Your task to perform on an android device: uninstall "Messenger Lite" Image 0: 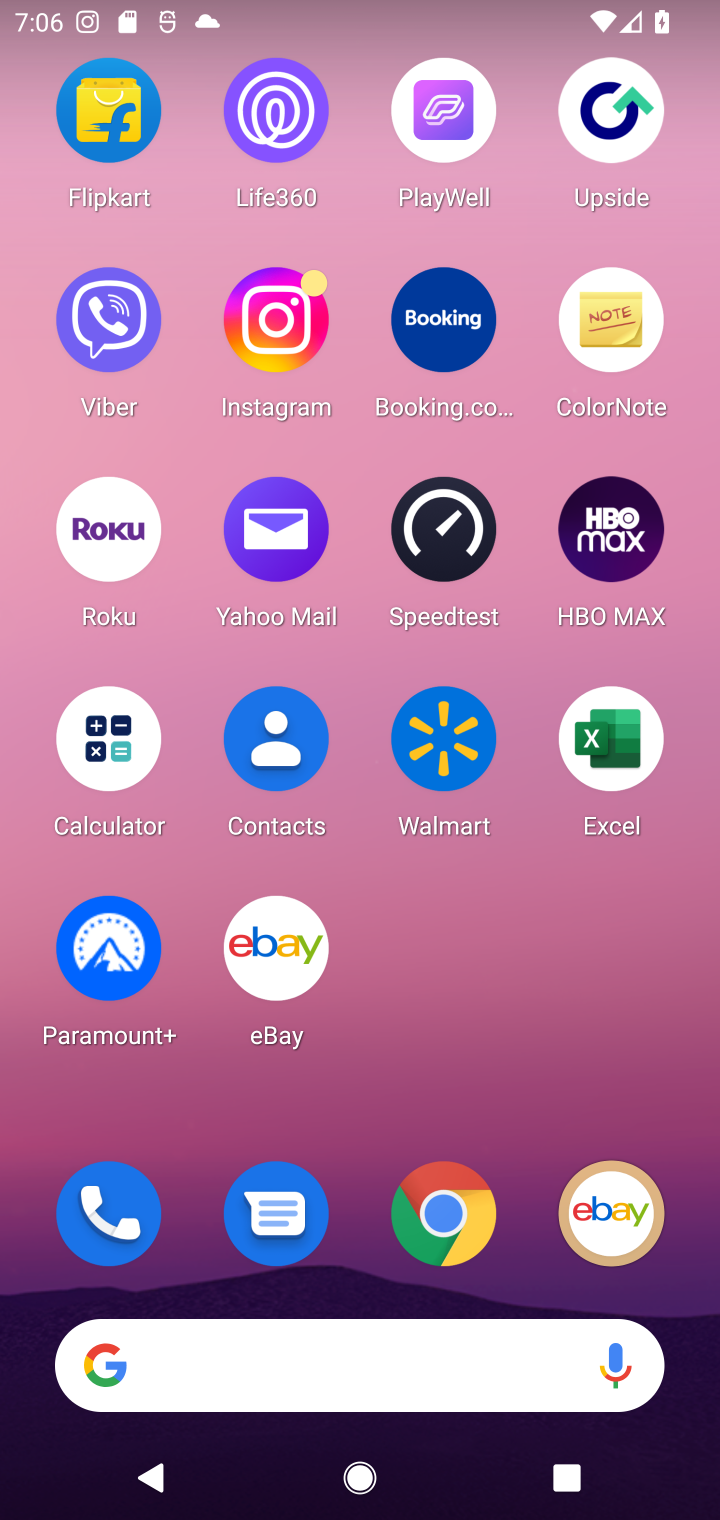
Step 0: drag from (369, 1084) to (425, 0)
Your task to perform on an android device: uninstall "Messenger Lite" Image 1: 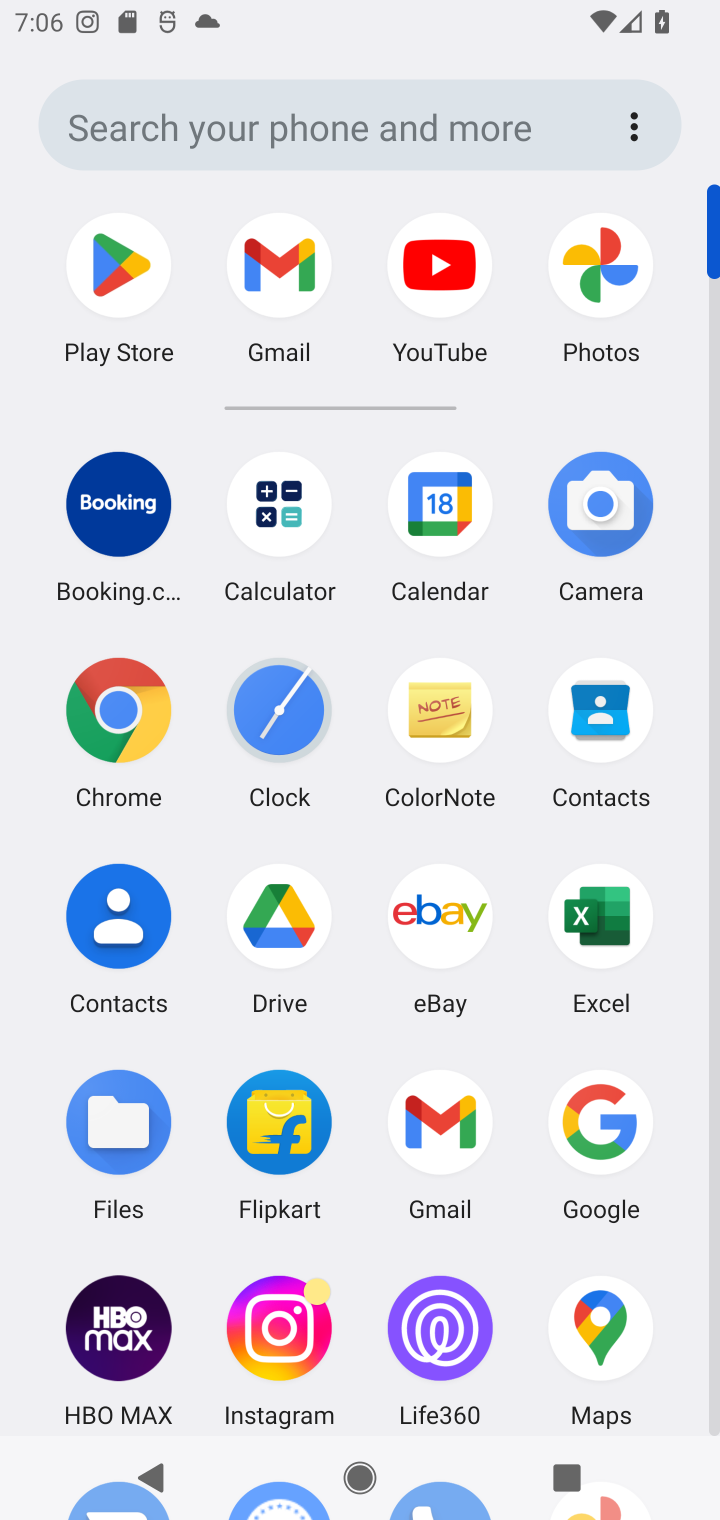
Step 1: drag from (355, 1234) to (387, 381)
Your task to perform on an android device: uninstall "Messenger Lite" Image 2: 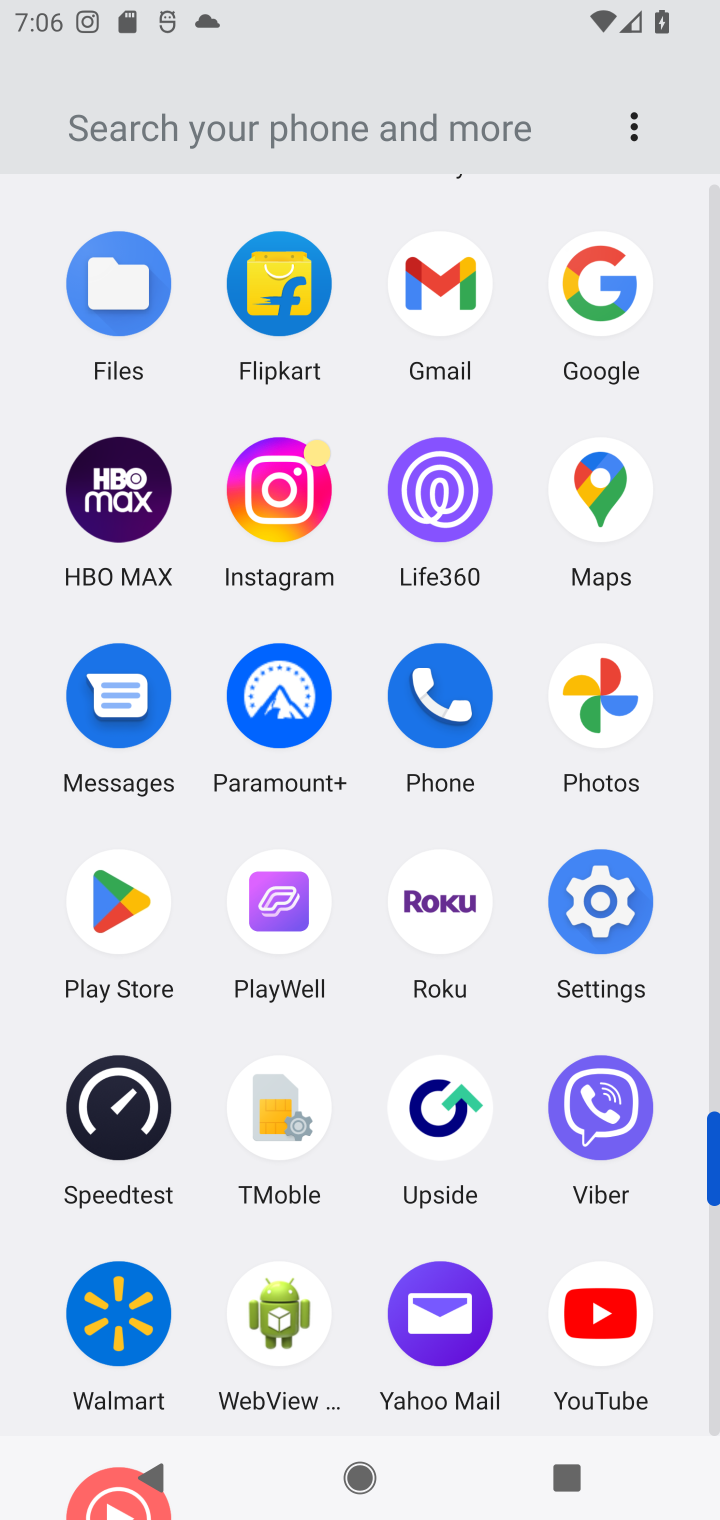
Step 2: click (103, 898)
Your task to perform on an android device: uninstall "Messenger Lite" Image 3: 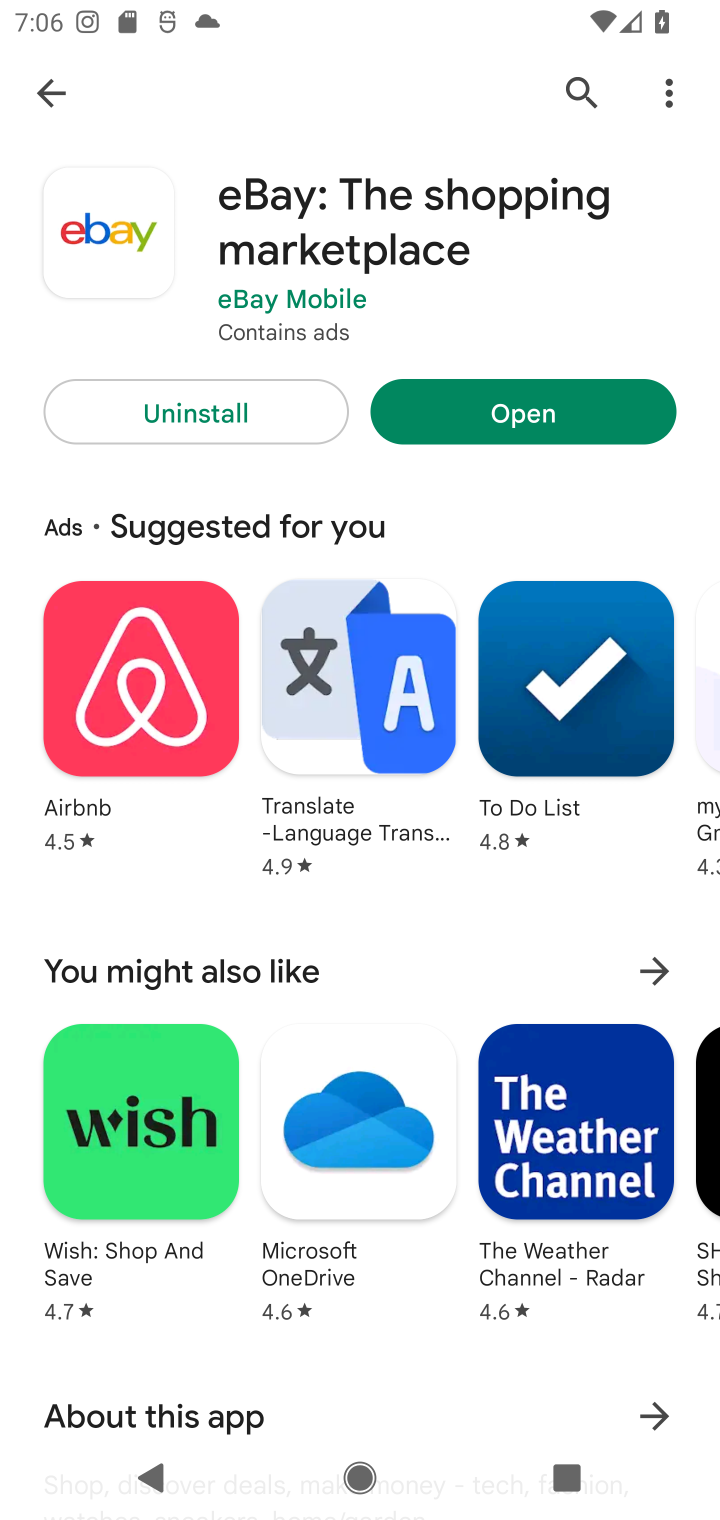
Step 3: click (48, 82)
Your task to perform on an android device: uninstall "Messenger Lite" Image 4: 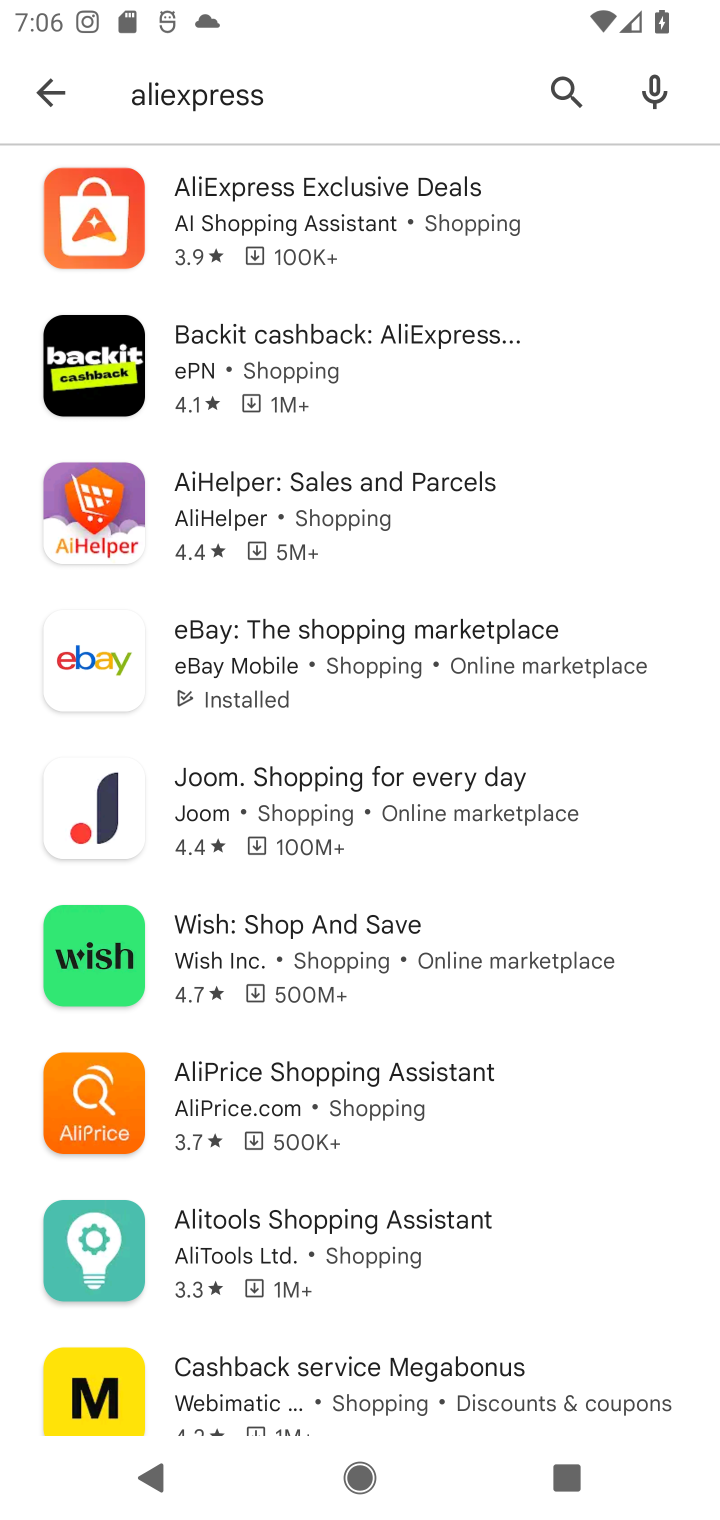
Step 4: click (573, 74)
Your task to perform on an android device: uninstall "Messenger Lite" Image 5: 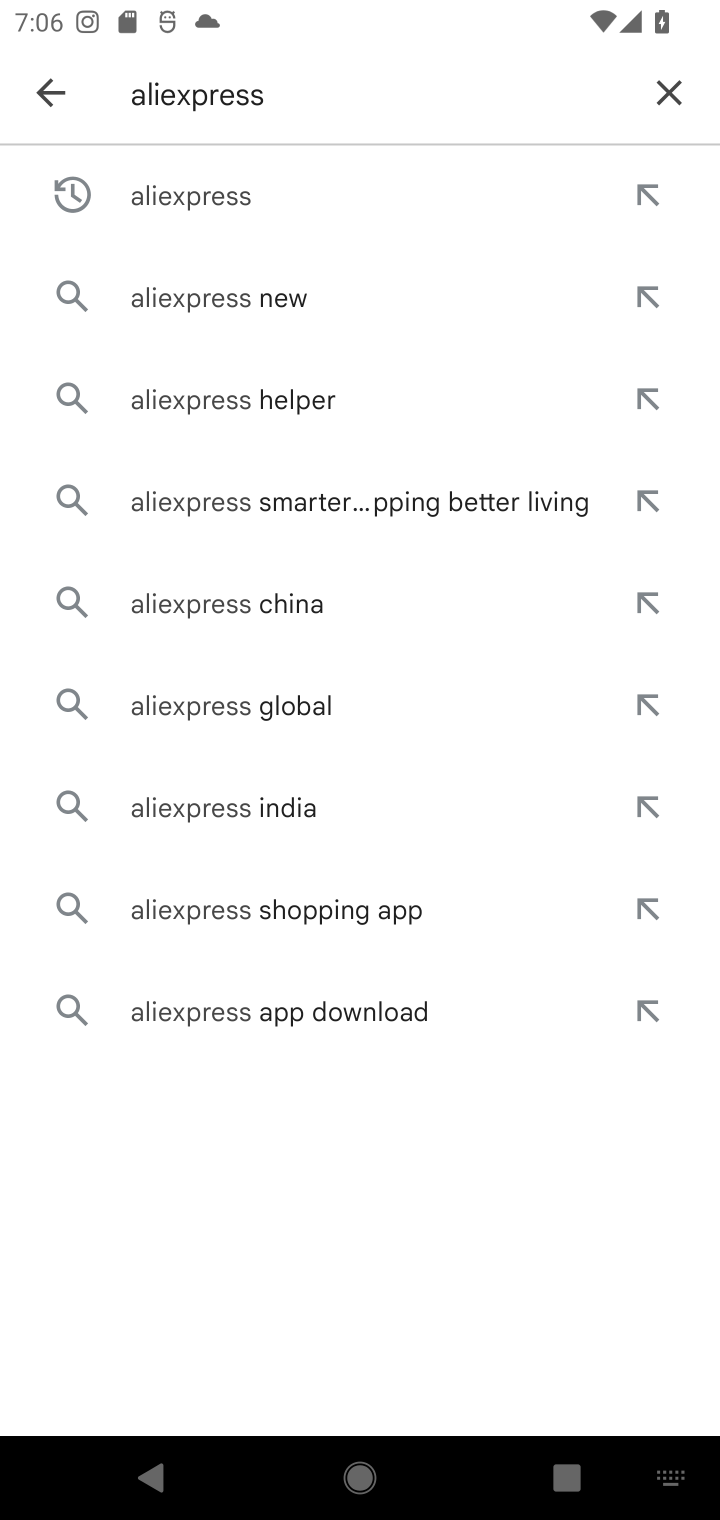
Step 5: click (671, 89)
Your task to perform on an android device: uninstall "Messenger Lite" Image 6: 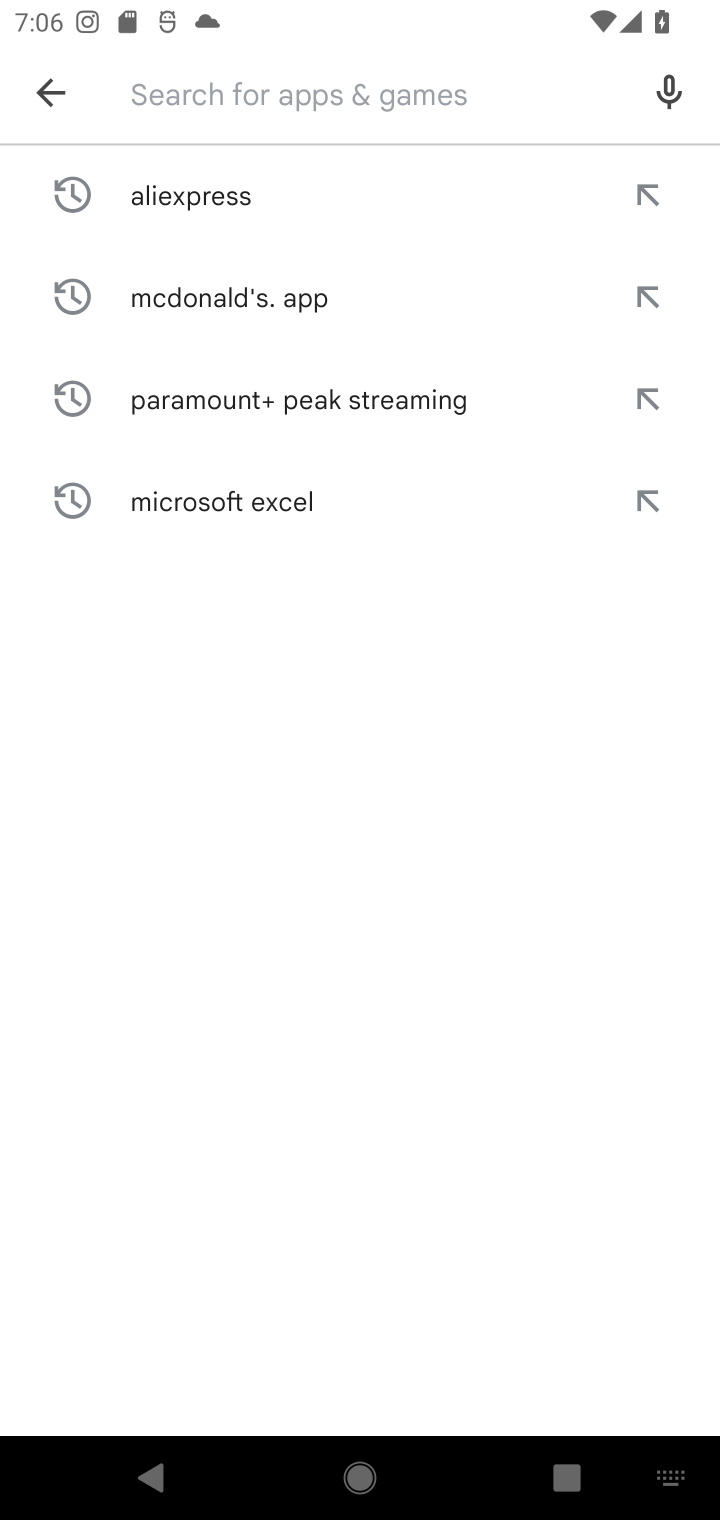
Step 6: type "Messenger Lite"
Your task to perform on an android device: uninstall "Messenger Lite" Image 7: 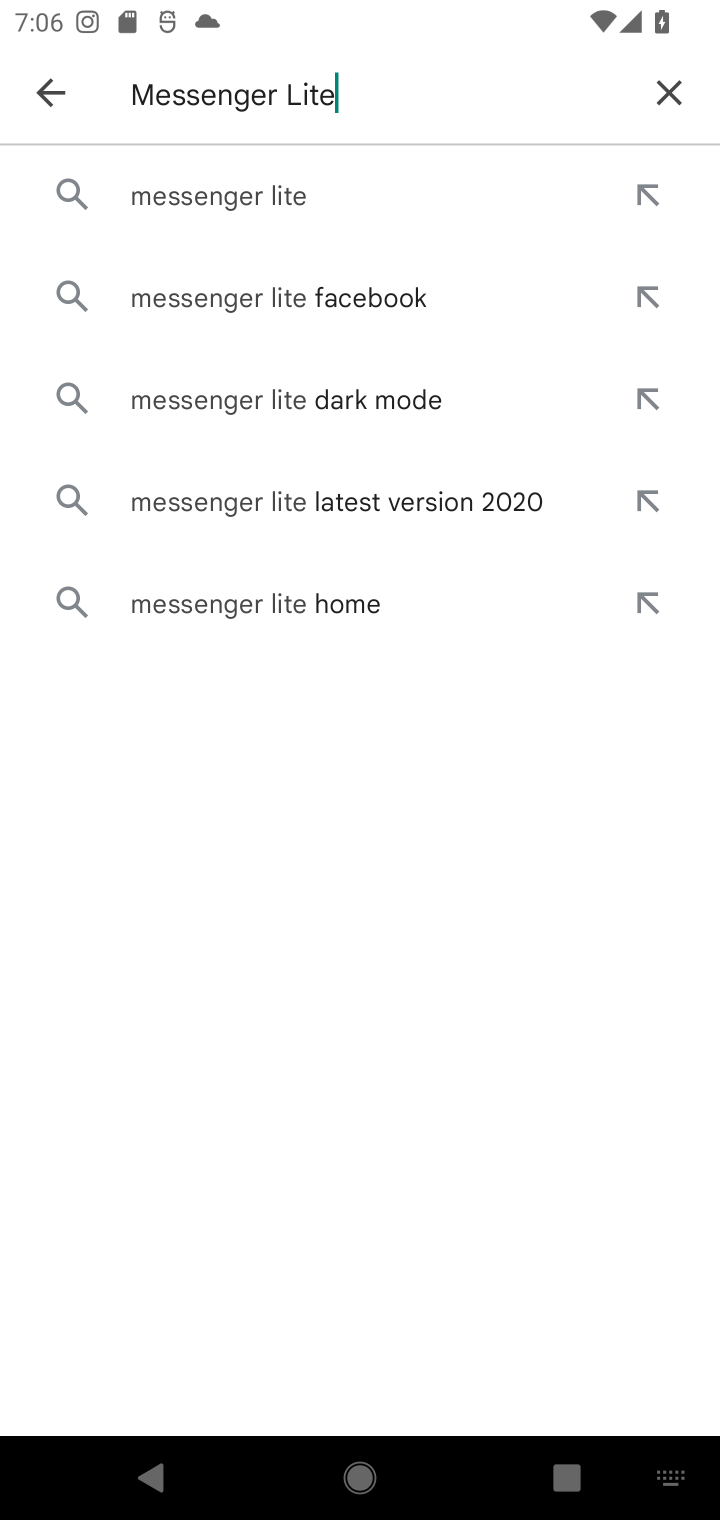
Step 7: click (334, 184)
Your task to perform on an android device: uninstall "Messenger Lite" Image 8: 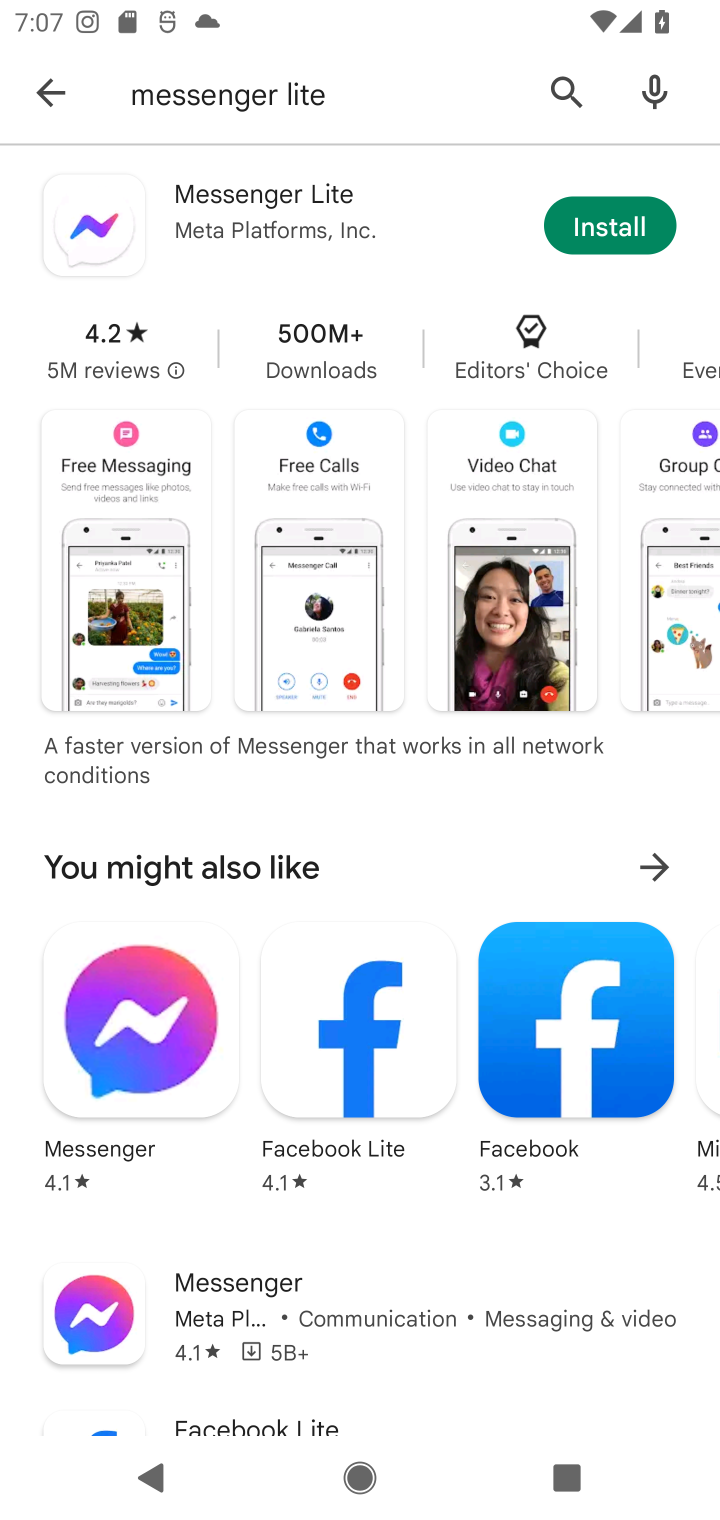
Step 8: task complete